Your task to perform on an android device: open a bookmark in the chrome app Image 0: 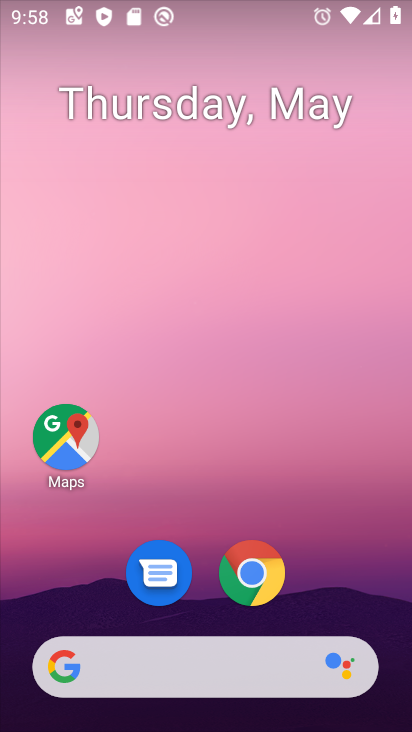
Step 0: click (253, 591)
Your task to perform on an android device: open a bookmark in the chrome app Image 1: 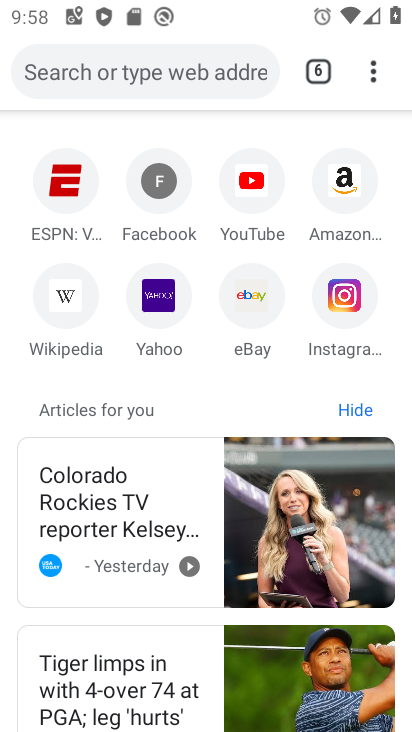
Step 1: click (368, 76)
Your task to perform on an android device: open a bookmark in the chrome app Image 2: 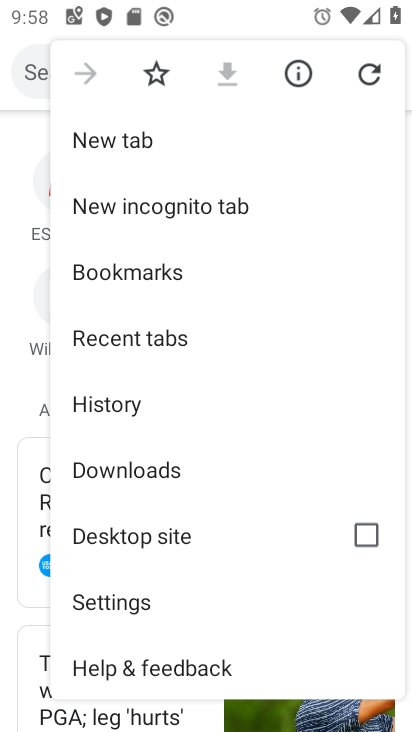
Step 2: click (118, 281)
Your task to perform on an android device: open a bookmark in the chrome app Image 3: 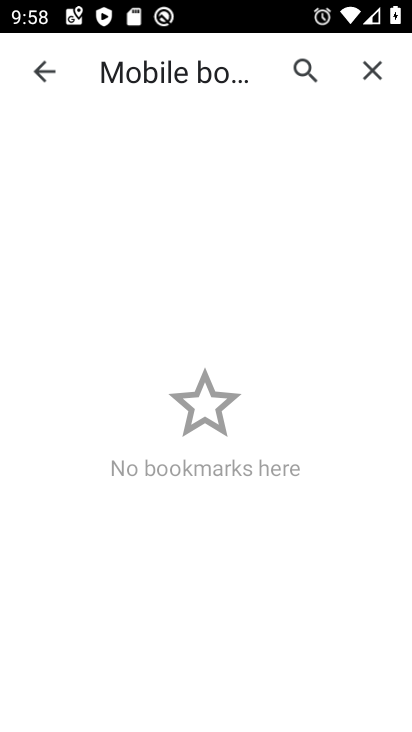
Step 3: task complete